Your task to perform on an android device: Go to eBay Image 0: 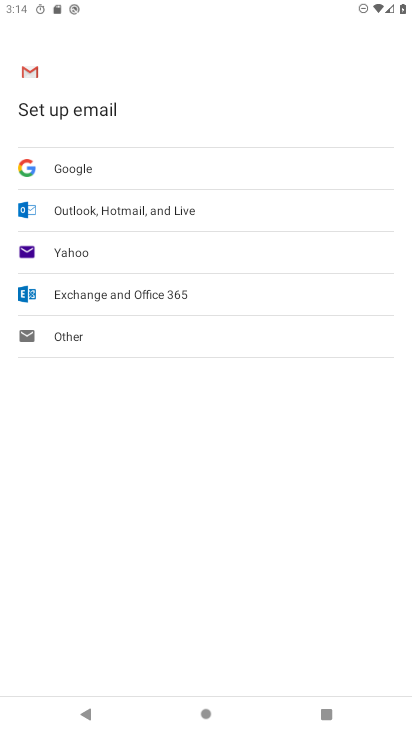
Step 0: press home button
Your task to perform on an android device: Go to eBay Image 1: 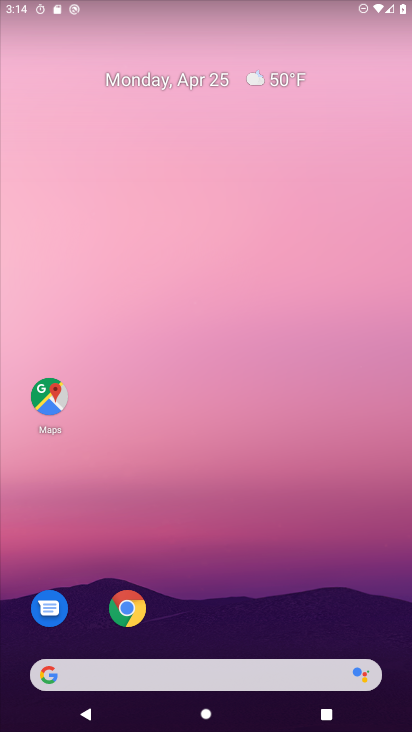
Step 1: click (104, 672)
Your task to perform on an android device: Go to eBay Image 2: 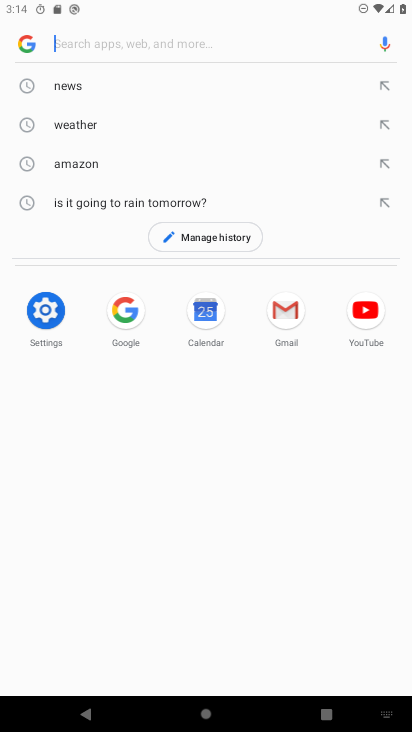
Step 2: type "eBay"
Your task to perform on an android device: Go to eBay Image 3: 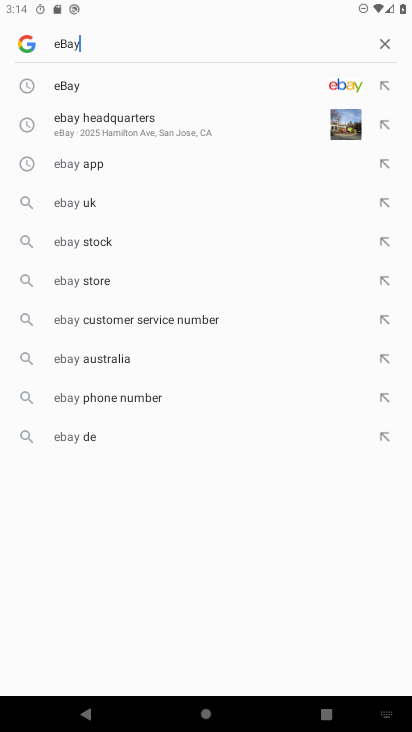
Step 3: click (100, 85)
Your task to perform on an android device: Go to eBay Image 4: 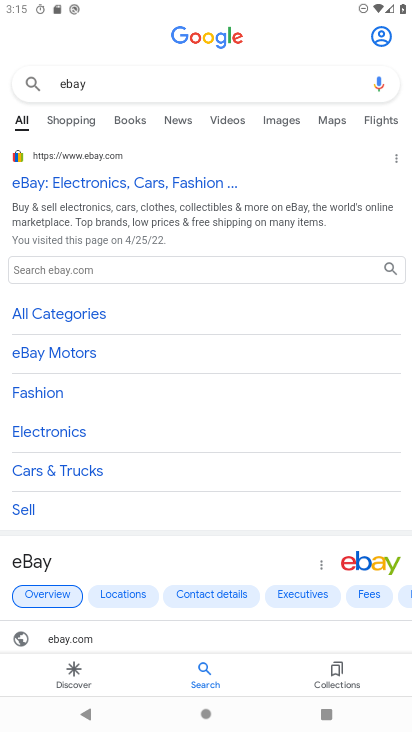
Step 4: click (56, 187)
Your task to perform on an android device: Go to eBay Image 5: 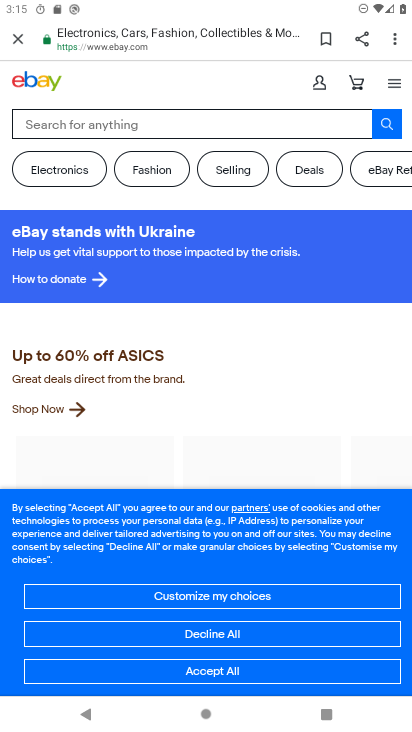
Step 5: task complete